Your task to perform on an android device: check data usage Image 0: 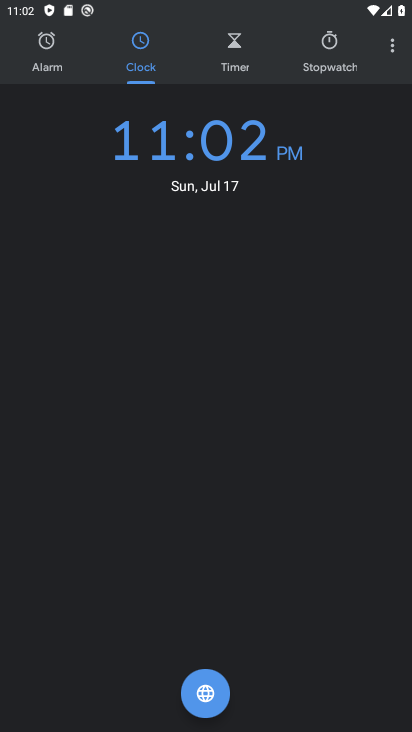
Step 0: press home button
Your task to perform on an android device: check data usage Image 1: 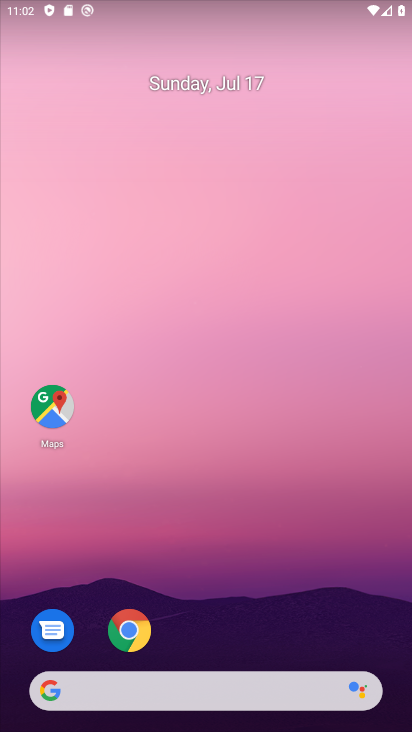
Step 1: drag from (253, 559) to (272, 35)
Your task to perform on an android device: check data usage Image 2: 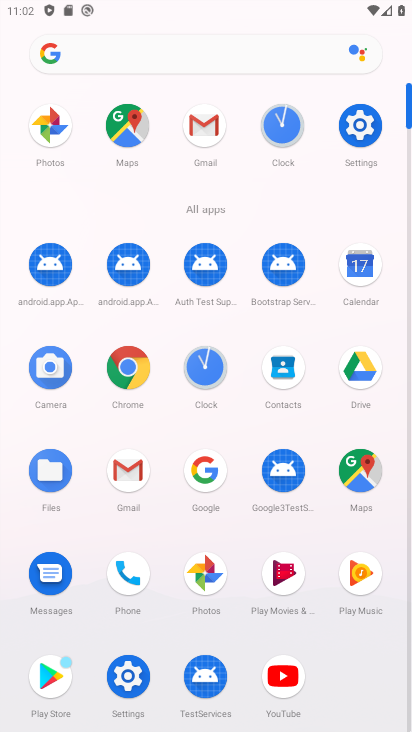
Step 2: click (355, 138)
Your task to perform on an android device: check data usage Image 3: 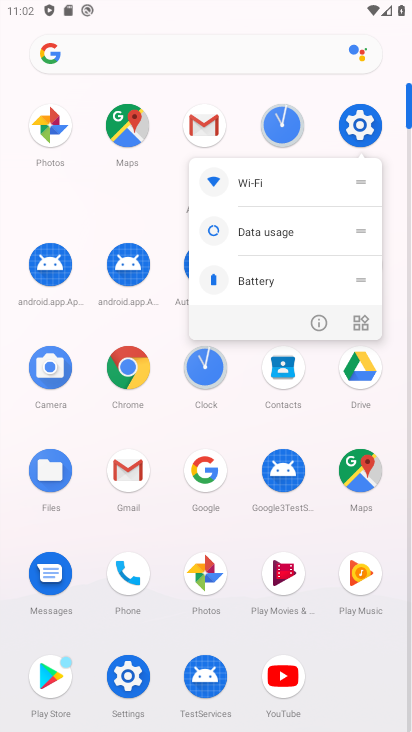
Step 3: click (356, 136)
Your task to perform on an android device: check data usage Image 4: 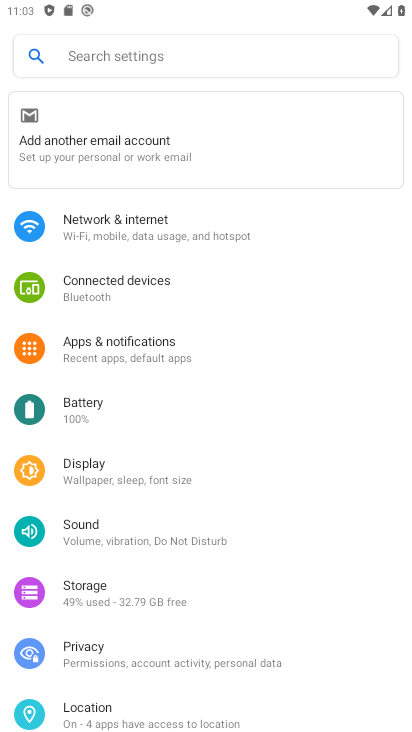
Step 4: click (163, 225)
Your task to perform on an android device: check data usage Image 5: 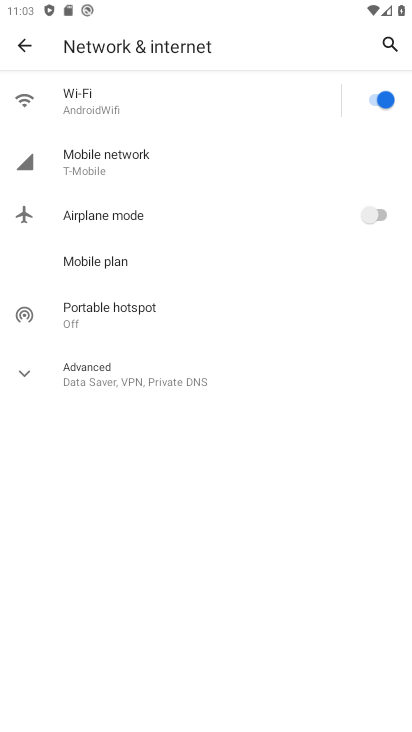
Step 5: click (141, 160)
Your task to perform on an android device: check data usage Image 6: 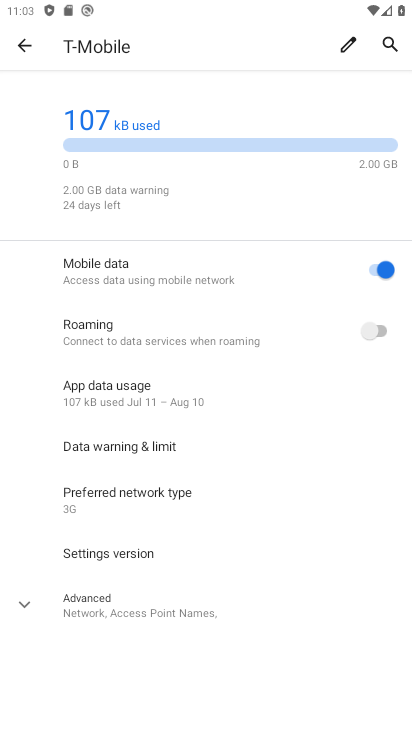
Step 6: task complete